Your task to perform on an android device: Open ESPN.com Image 0: 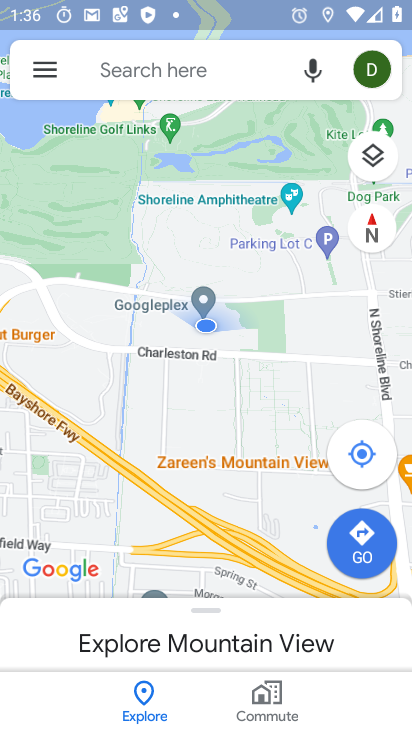
Step 0: press home button
Your task to perform on an android device: Open ESPN.com Image 1: 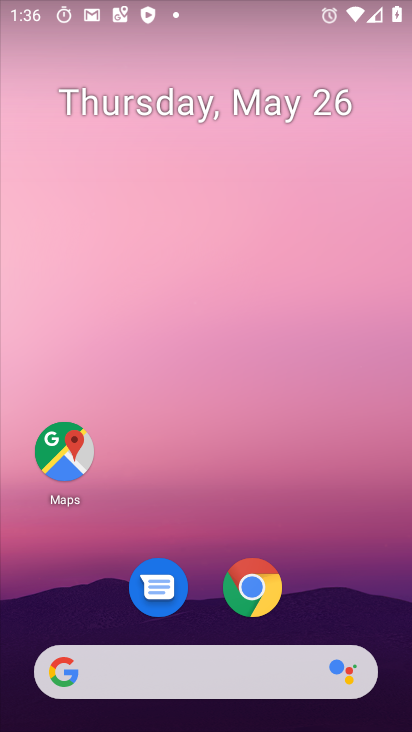
Step 1: drag from (203, 611) to (195, 57)
Your task to perform on an android device: Open ESPN.com Image 2: 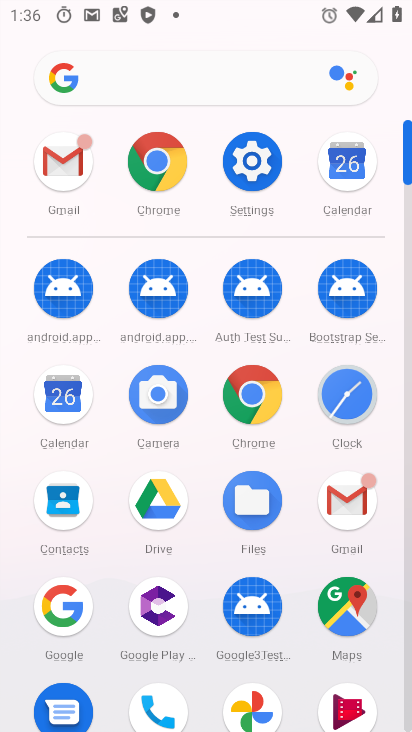
Step 2: click (152, 146)
Your task to perform on an android device: Open ESPN.com Image 3: 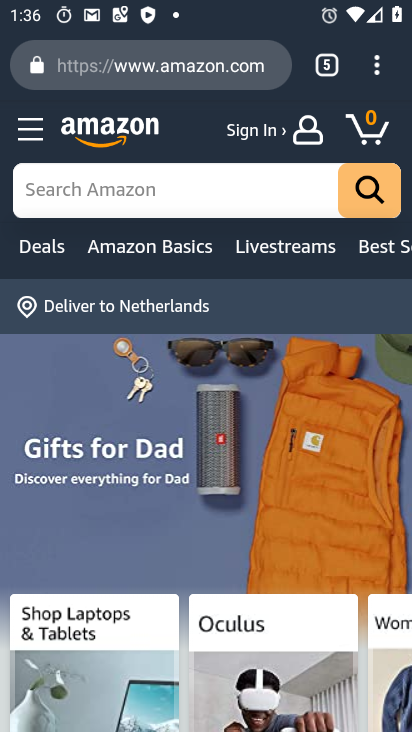
Step 3: click (137, 64)
Your task to perform on an android device: Open ESPN.com Image 4: 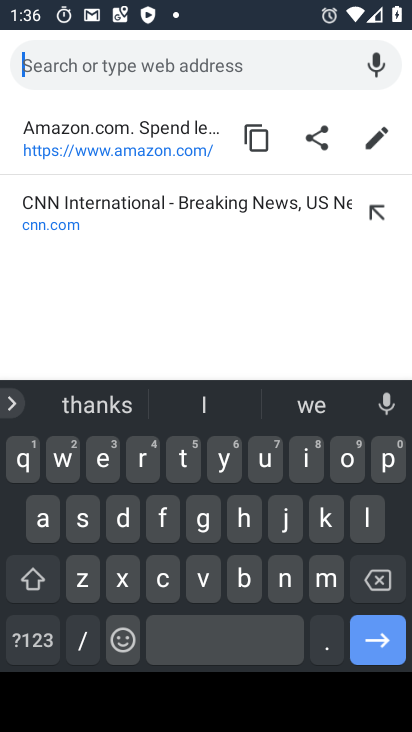
Step 4: click (98, 464)
Your task to perform on an android device: Open ESPN.com Image 5: 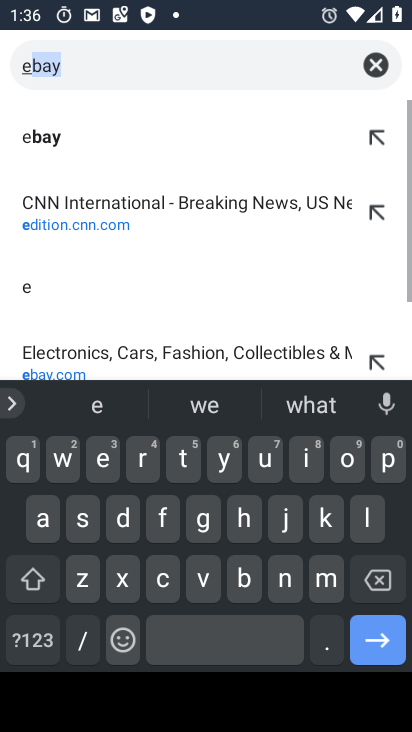
Step 5: click (79, 535)
Your task to perform on an android device: Open ESPN.com Image 6: 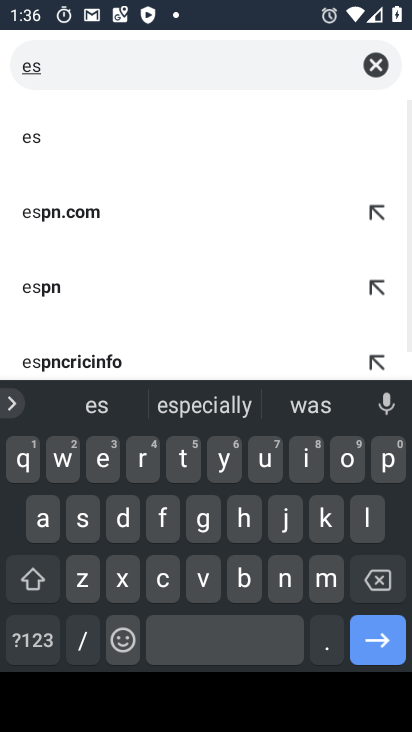
Step 6: click (85, 212)
Your task to perform on an android device: Open ESPN.com Image 7: 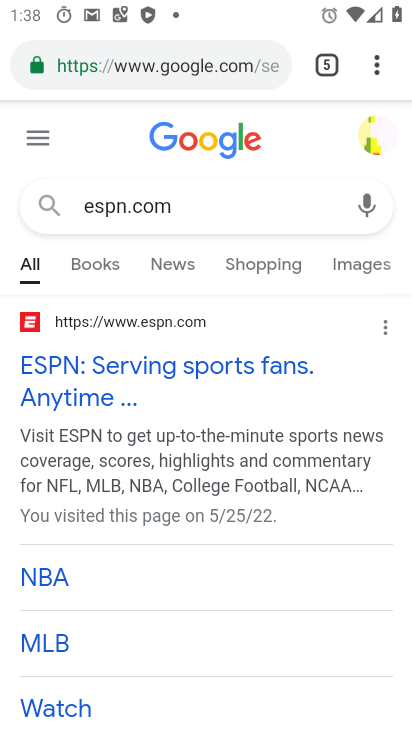
Step 7: task complete